Your task to perform on an android device: Open display settings Image 0: 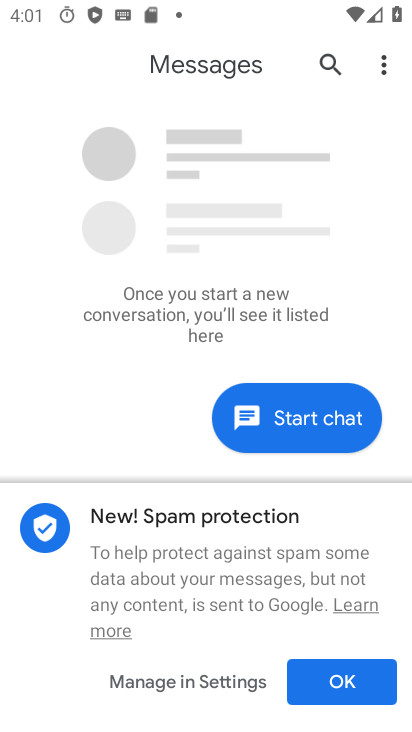
Step 0: press home button
Your task to perform on an android device: Open display settings Image 1: 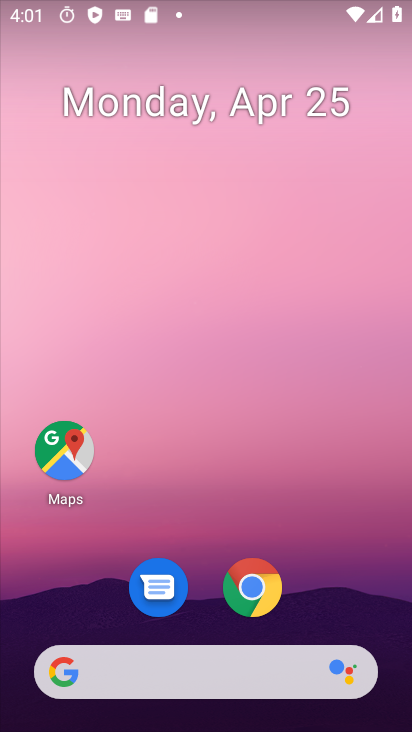
Step 1: drag from (321, 526) to (313, 96)
Your task to perform on an android device: Open display settings Image 2: 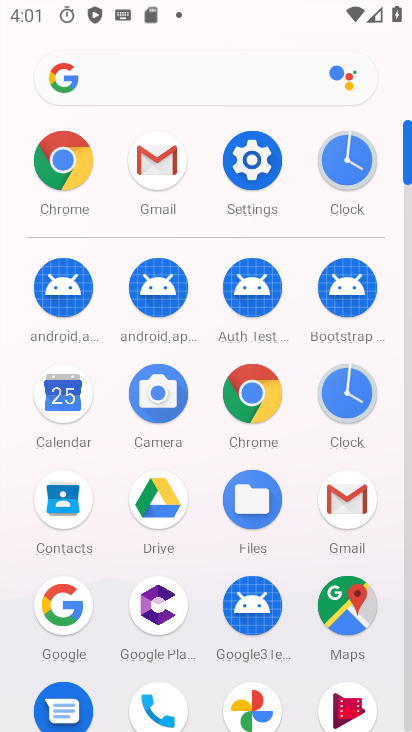
Step 2: click (264, 145)
Your task to perform on an android device: Open display settings Image 3: 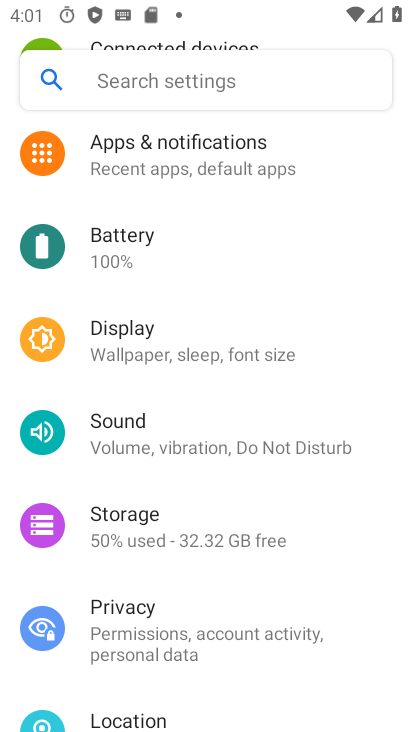
Step 3: click (199, 347)
Your task to perform on an android device: Open display settings Image 4: 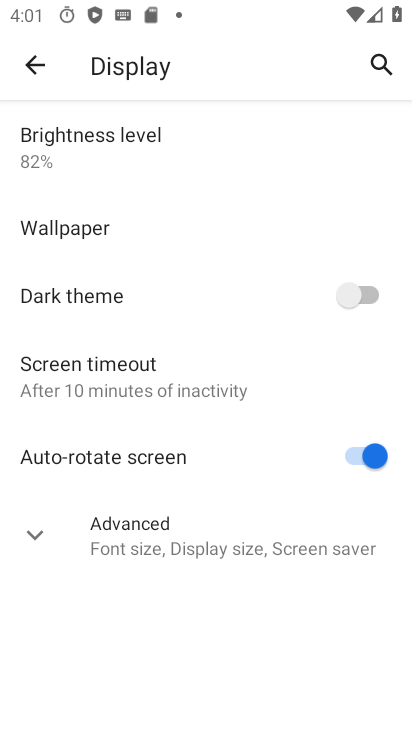
Step 4: task complete